Your task to perform on an android device: open app "Pluto TV - Live TV and Movies" (install if not already installed) and go to login screen Image 0: 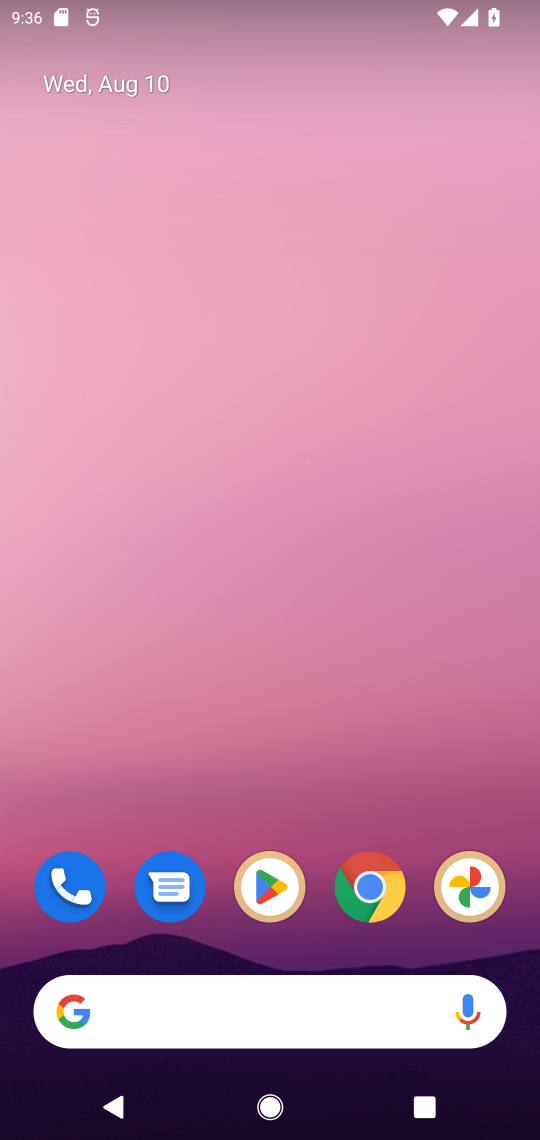
Step 0: click (275, 912)
Your task to perform on an android device: open app "Pluto TV - Live TV and Movies" (install if not already installed) and go to login screen Image 1: 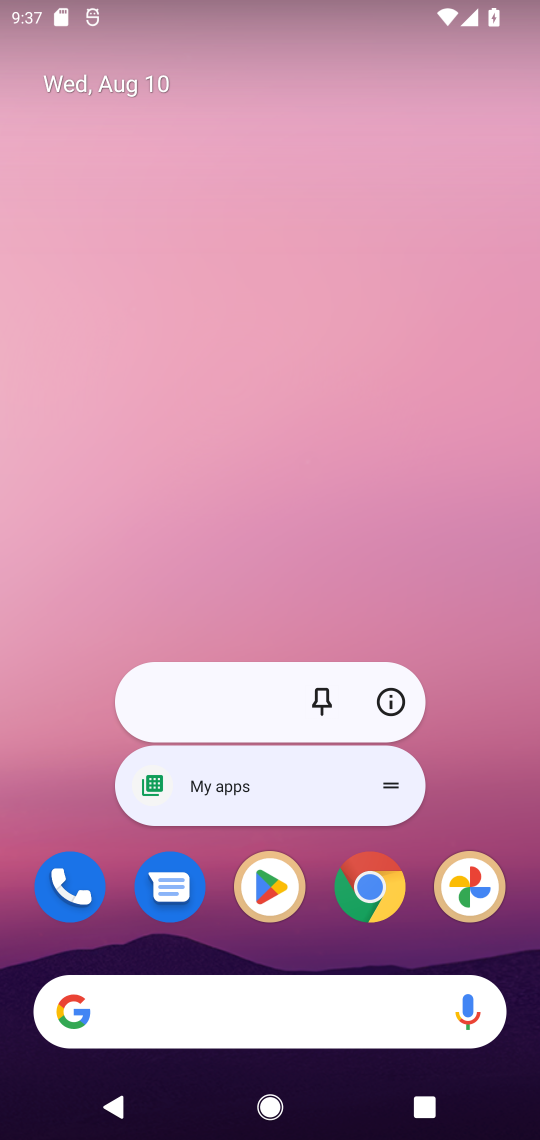
Step 1: click (275, 912)
Your task to perform on an android device: open app "Pluto TV - Live TV and Movies" (install if not already installed) and go to login screen Image 2: 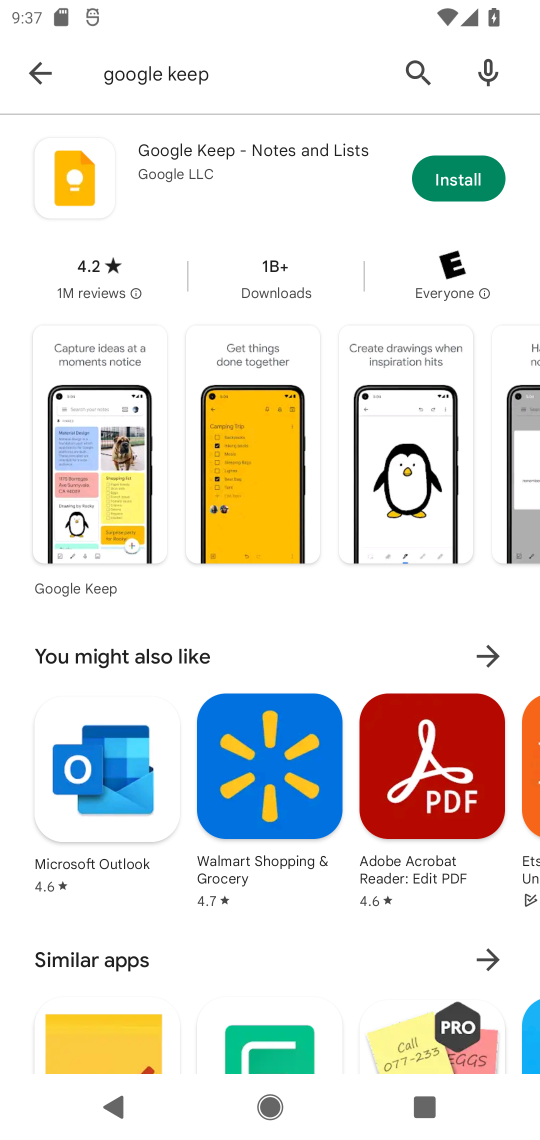
Step 2: click (425, 72)
Your task to perform on an android device: open app "Pluto TV - Live TV and Movies" (install if not already installed) and go to login screen Image 3: 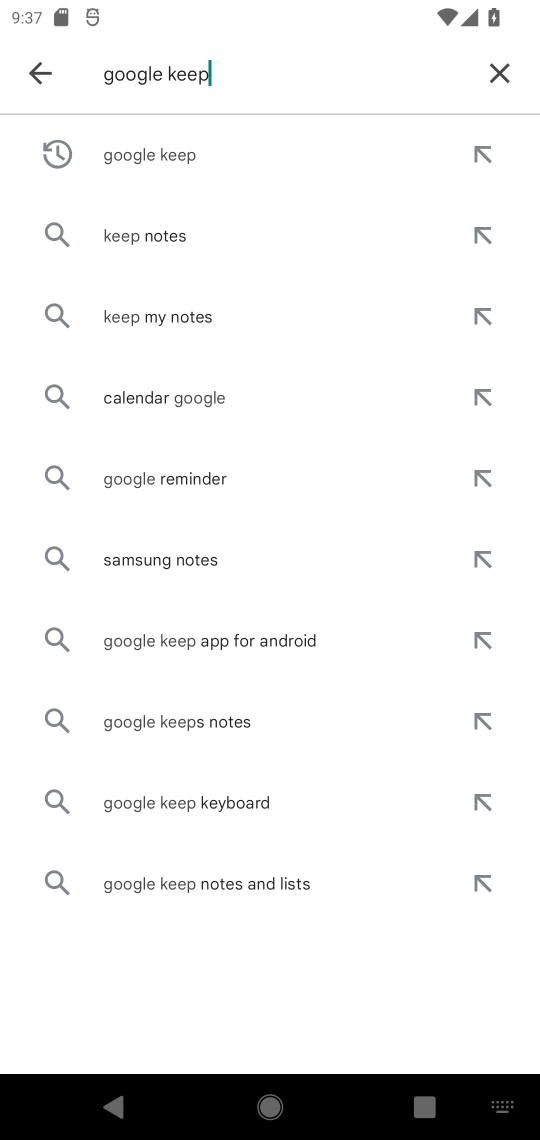
Step 3: click (511, 75)
Your task to perform on an android device: open app "Pluto TV - Live TV and Movies" (install if not already installed) and go to login screen Image 4: 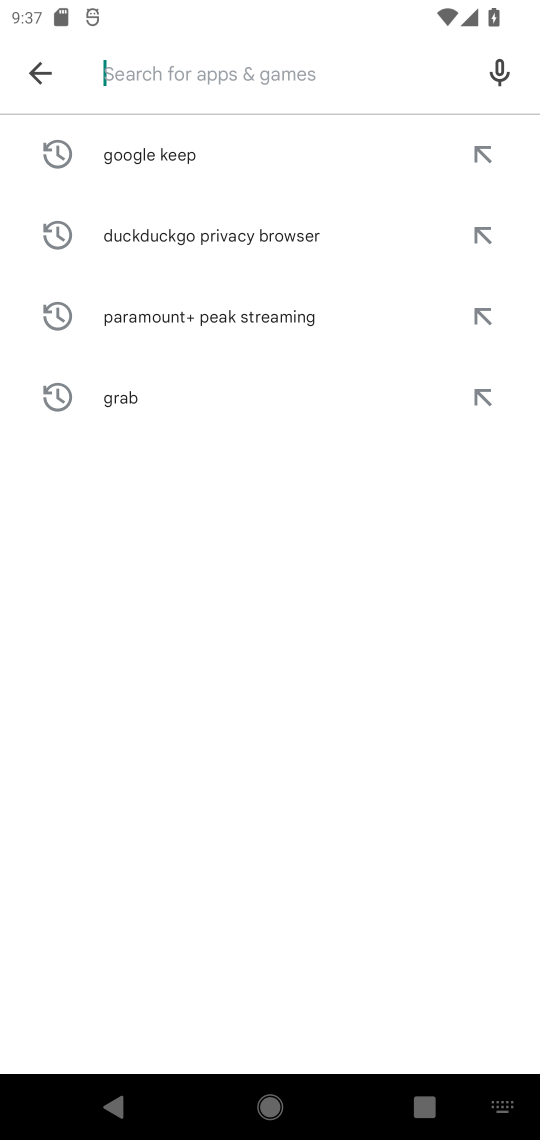
Step 4: type "pluto tv"
Your task to perform on an android device: open app "Pluto TV - Live TV and Movies" (install if not already installed) and go to login screen Image 5: 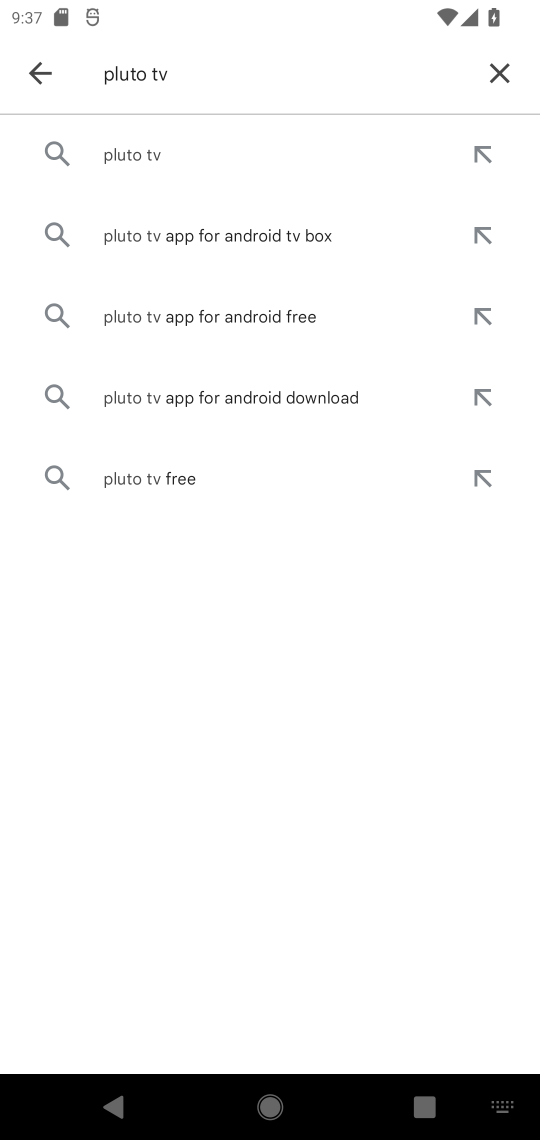
Step 5: click (143, 132)
Your task to perform on an android device: open app "Pluto TV - Live TV and Movies" (install if not already installed) and go to login screen Image 6: 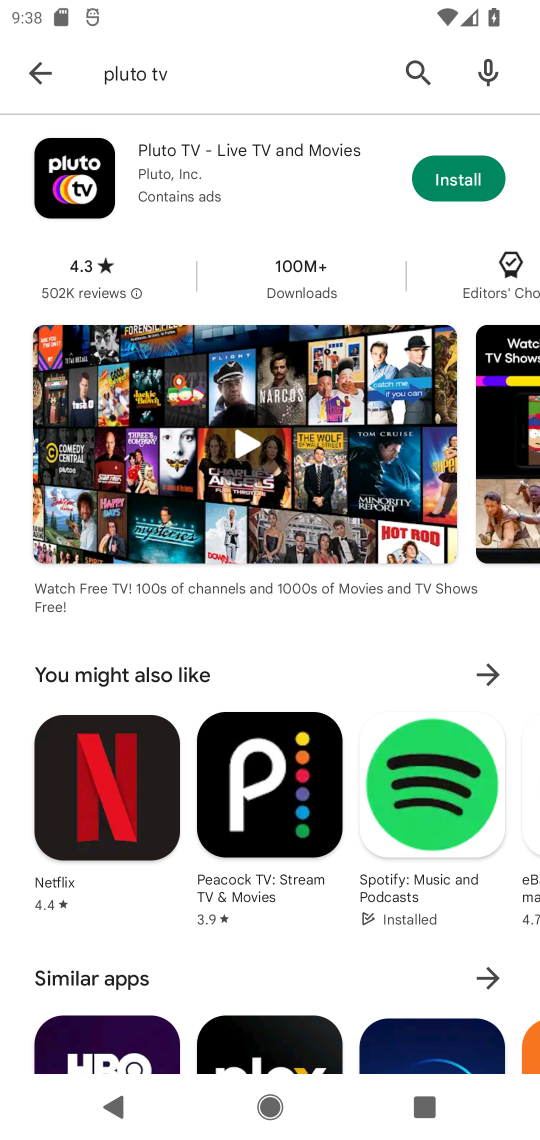
Step 6: click (499, 170)
Your task to perform on an android device: open app "Pluto TV - Live TV and Movies" (install if not already installed) and go to login screen Image 7: 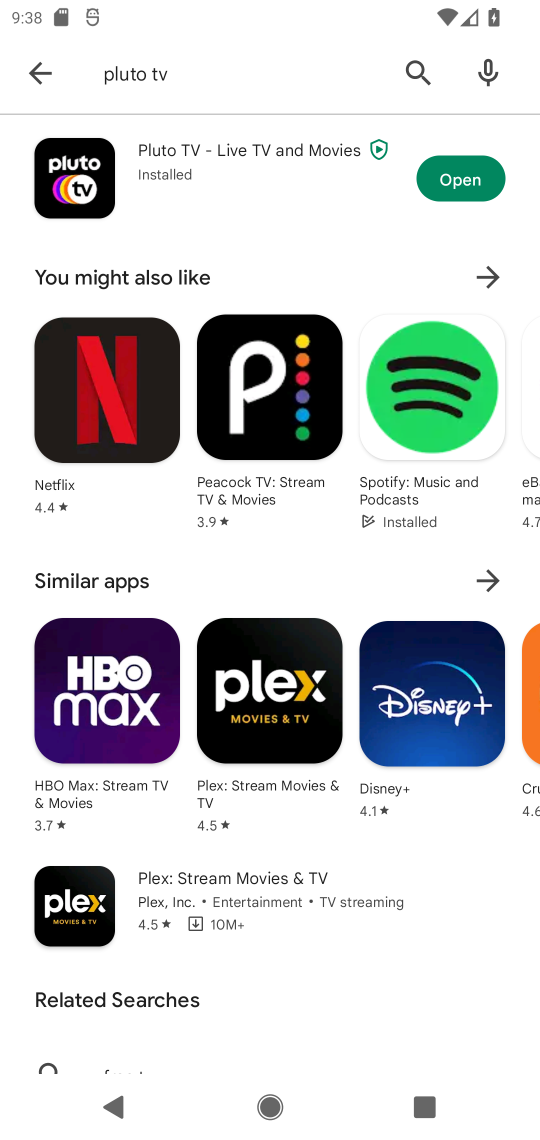
Step 7: click (461, 195)
Your task to perform on an android device: open app "Pluto TV - Live TV and Movies" (install if not already installed) and go to login screen Image 8: 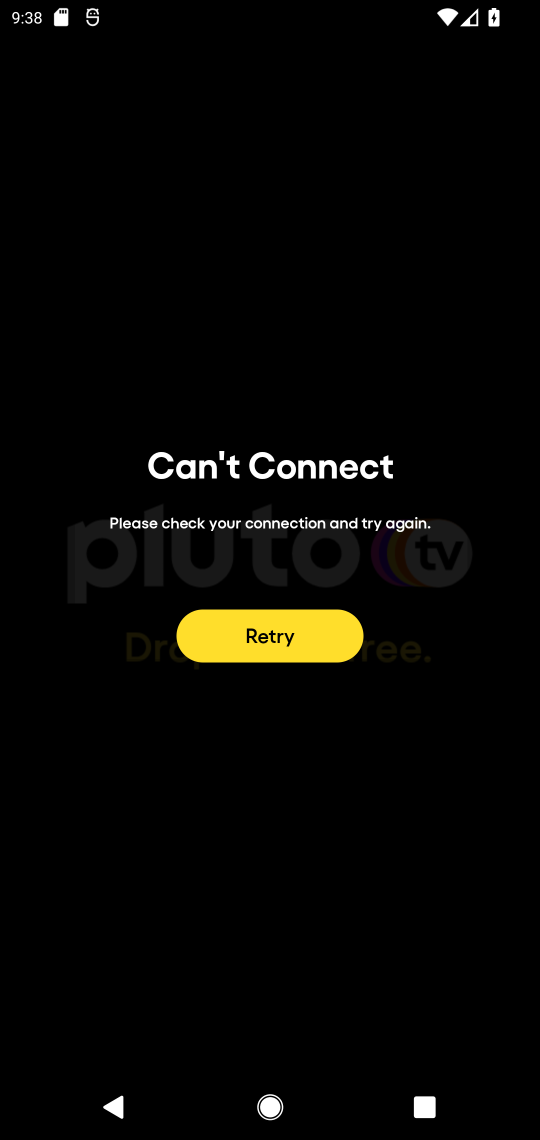
Step 8: task complete